Your task to perform on an android device: stop showing notifications on the lock screen Image 0: 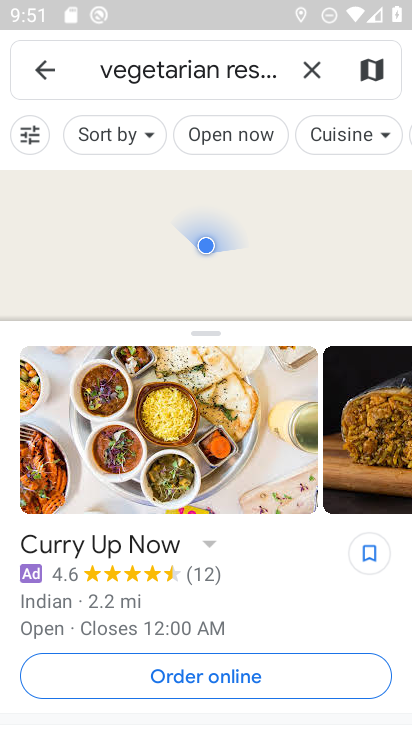
Step 0: click (315, 63)
Your task to perform on an android device: stop showing notifications on the lock screen Image 1: 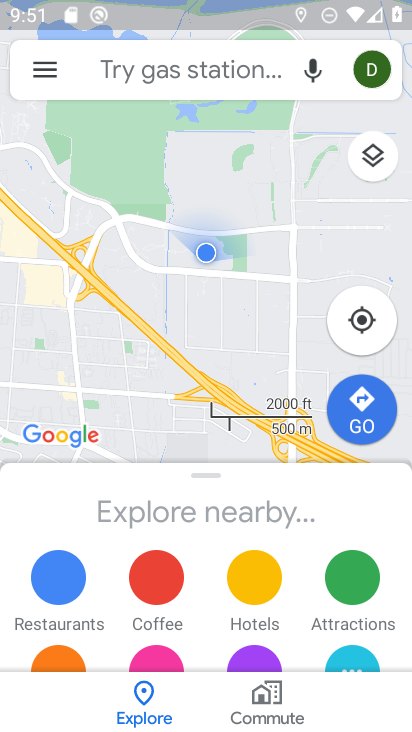
Step 1: press home button
Your task to perform on an android device: stop showing notifications on the lock screen Image 2: 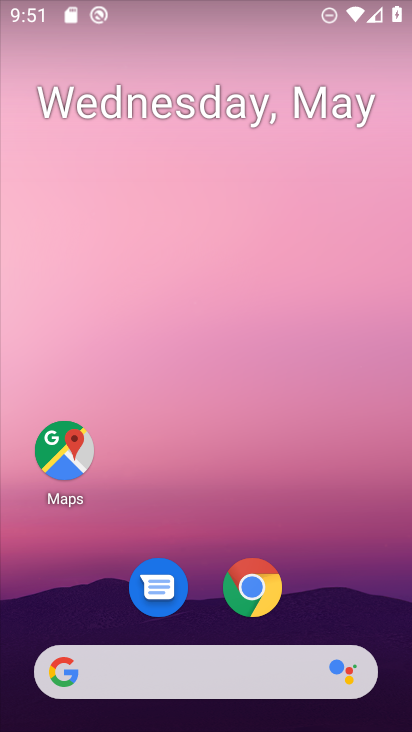
Step 2: drag from (215, 726) to (218, 272)
Your task to perform on an android device: stop showing notifications on the lock screen Image 3: 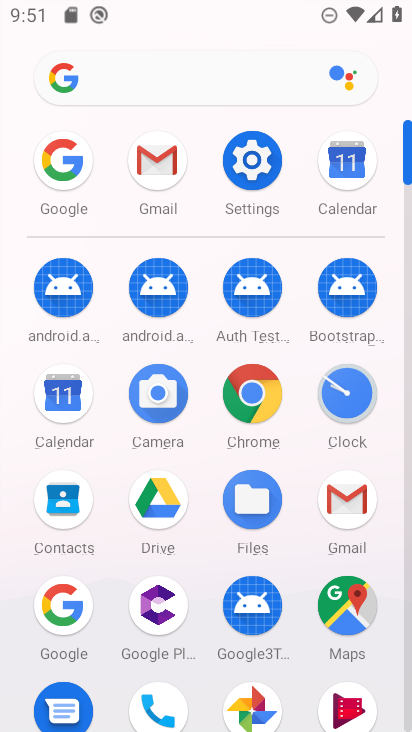
Step 3: click (252, 164)
Your task to perform on an android device: stop showing notifications on the lock screen Image 4: 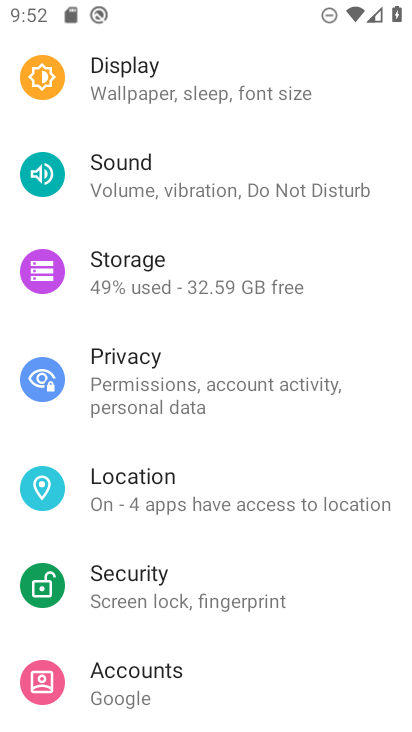
Step 4: drag from (297, 138) to (261, 495)
Your task to perform on an android device: stop showing notifications on the lock screen Image 5: 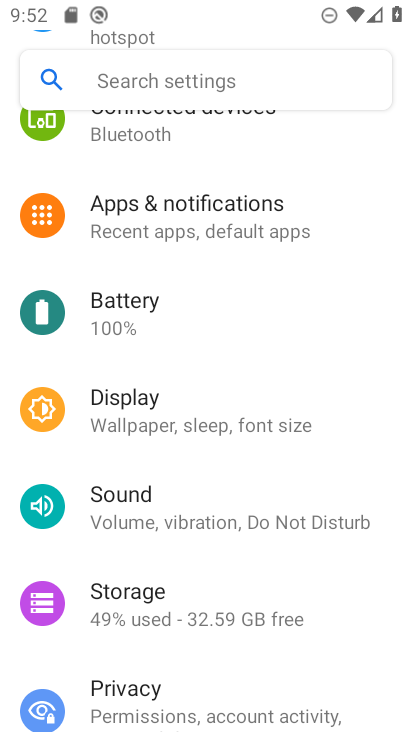
Step 5: click (205, 222)
Your task to perform on an android device: stop showing notifications on the lock screen Image 6: 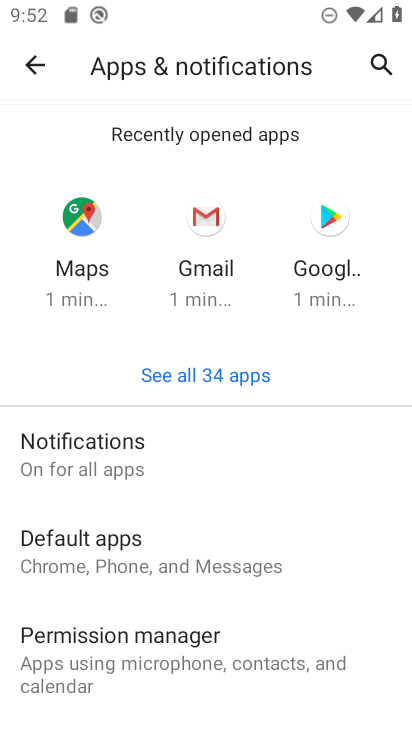
Step 6: click (90, 455)
Your task to perform on an android device: stop showing notifications on the lock screen Image 7: 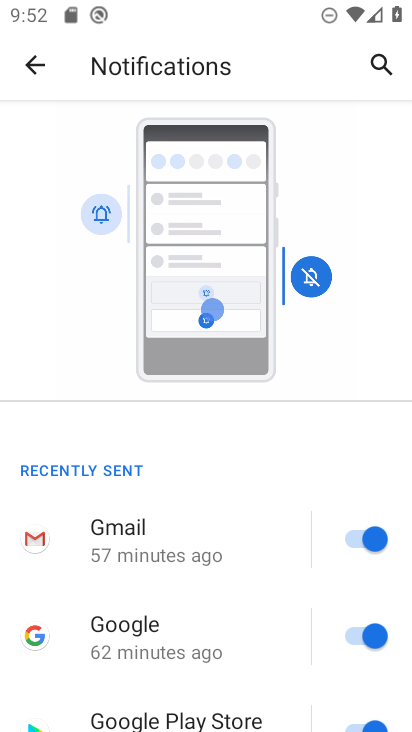
Step 7: click (208, 272)
Your task to perform on an android device: stop showing notifications on the lock screen Image 8: 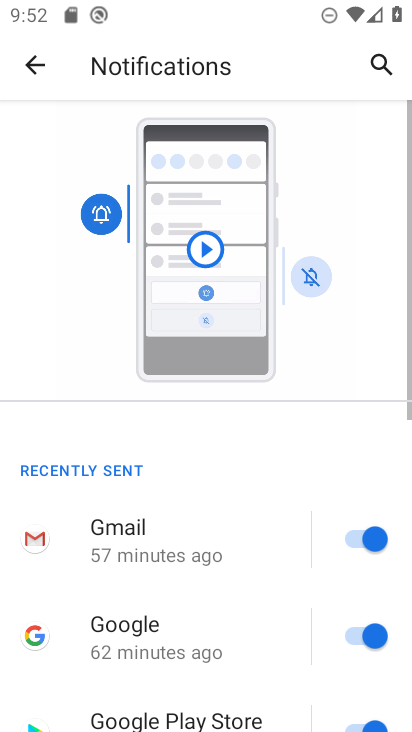
Step 8: drag from (180, 680) to (188, 296)
Your task to perform on an android device: stop showing notifications on the lock screen Image 9: 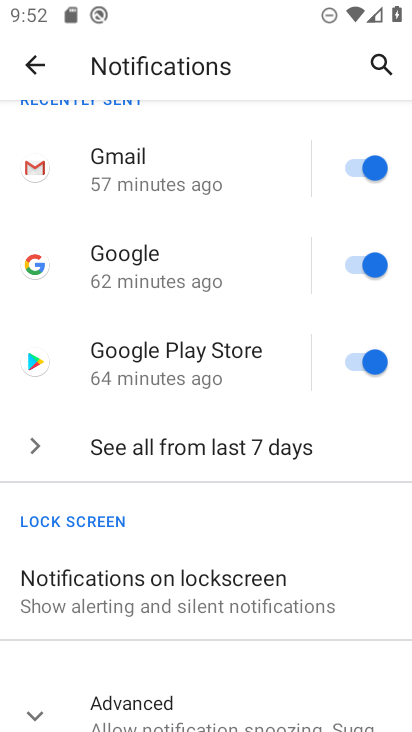
Step 9: click (193, 594)
Your task to perform on an android device: stop showing notifications on the lock screen Image 10: 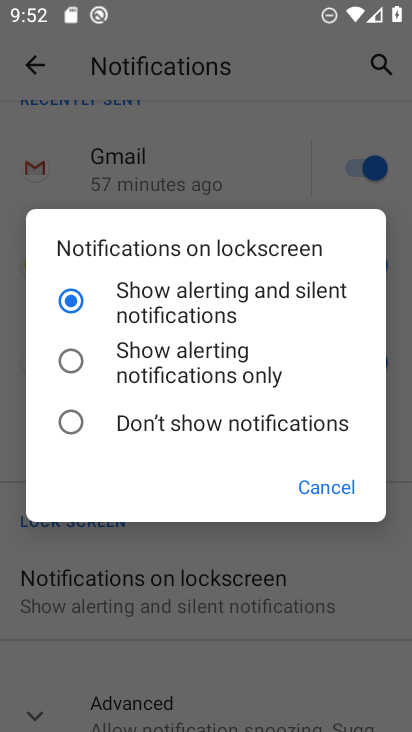
Step 10: click (75, 420)
Your task to perform on an android device: stop showing notifications on the lock screen Image 11: 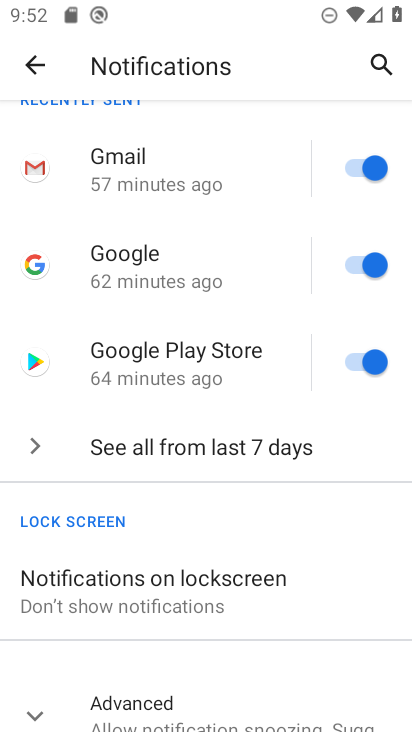
Step 11: task complete